Your task to perform on an android device: delete browsing data in the chrome app Image 0: 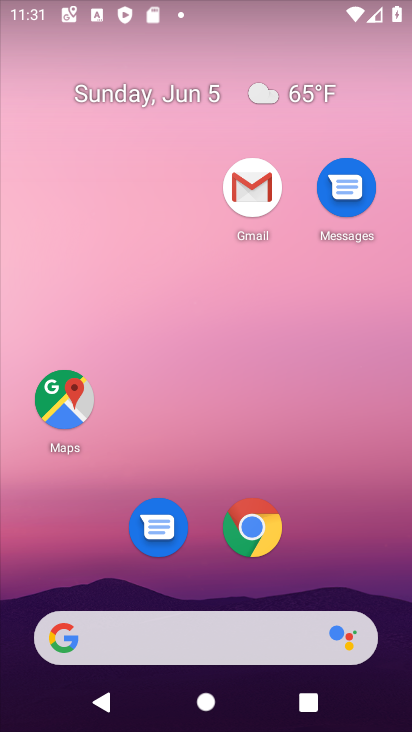
Step 0: click (243, 527)
Your task to perform on an android device: delete browsing data in the chrome app Image 1: 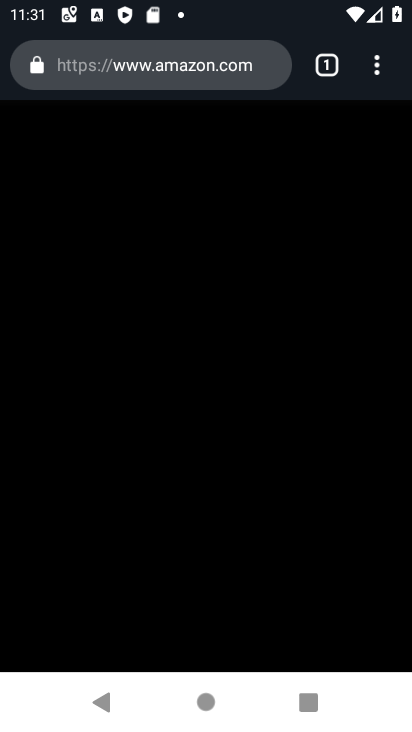
Step 1: click (383, 55)
Your task to perform on an android device: delete browsing data in the chrome app Image 2: 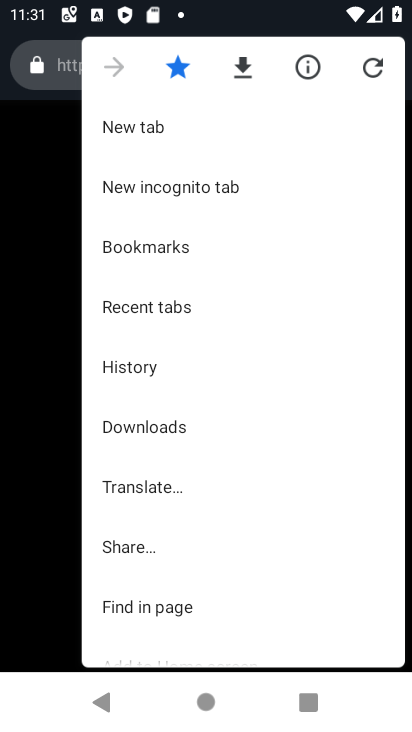
Step 2: drag from (255, 593) to (262, 546)
Your task to perform on an android device: delete browsing data in the chrome app Image 3: 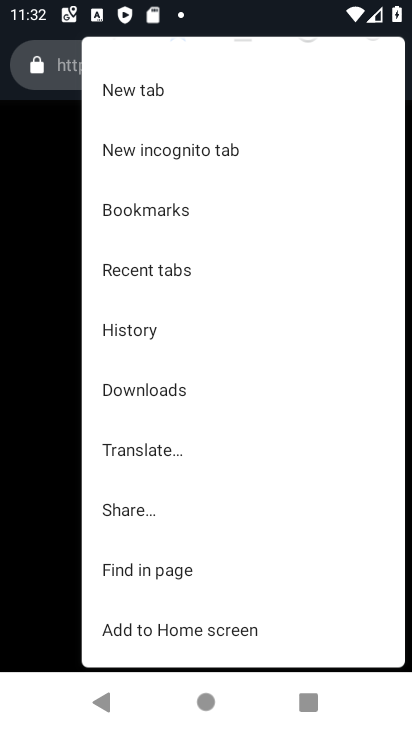
Step 3: drag from (344, 606) to (348, 503)
Your task to perform on an android device: delete browsing data in the chrome app Image 4: 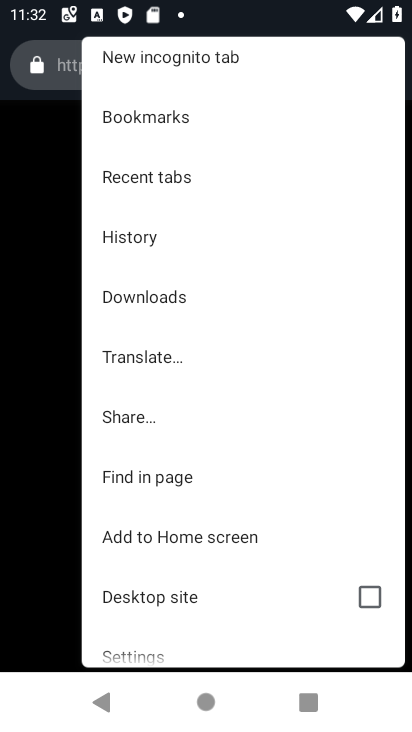
Step 4: click (159, 645)
Your task to perform on an android device: delete browsing data in the chrome app Image 5: 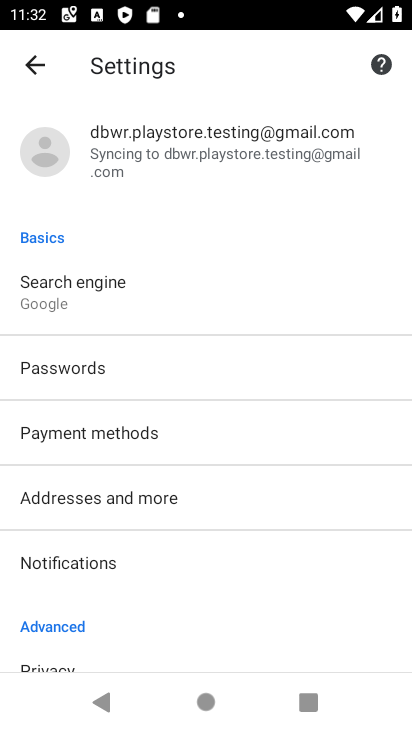
Step 5: drag from (358, 618) to (343, 437)
Your task to perform on an android device: delete browsing data in the chrome app Image 6: 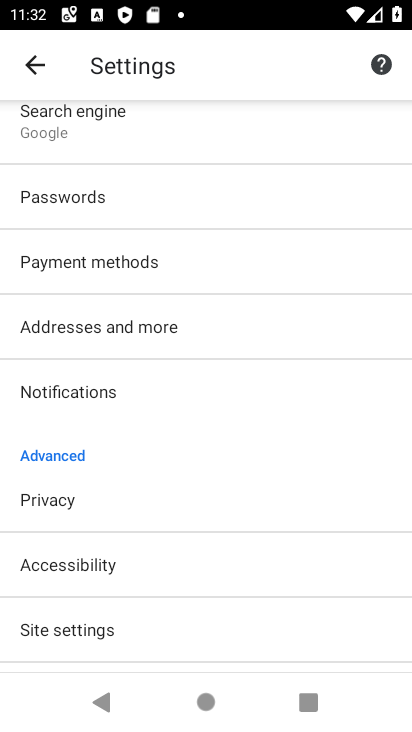
Step 6: click (141, 508)
Your task to perform on an android device: delete browsing data in the chrome app Image 7: 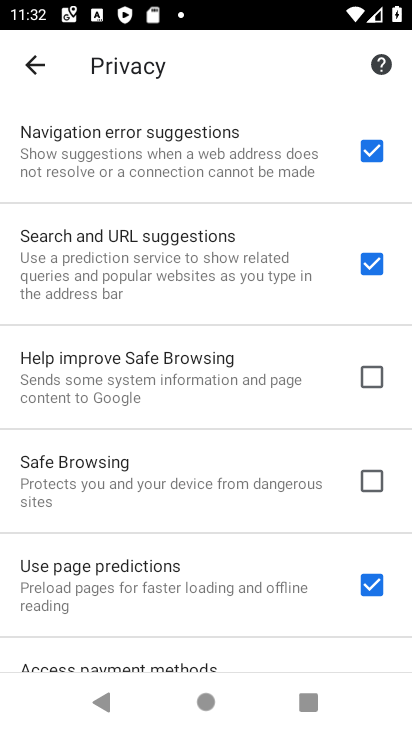
Step 7: drag from (262, 642) to (184, 326)
Your task to perform on an android device: delete browsing data in the chrome app Image 8: 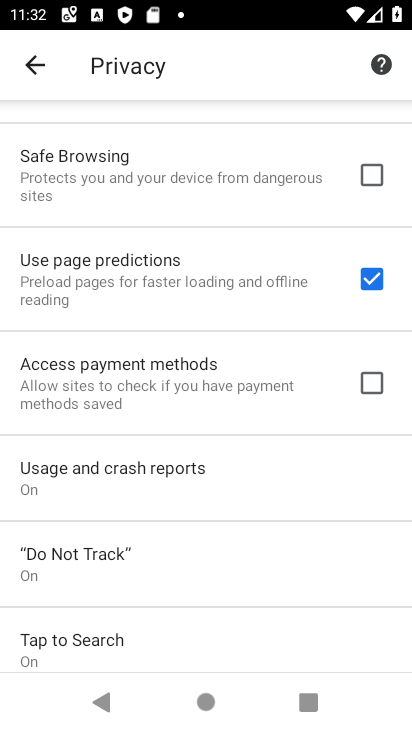
Step 8: drag from (212, 621) to (159, 334)
Your task to perform on an android device: delete browsing data in the chrome app Image 9: 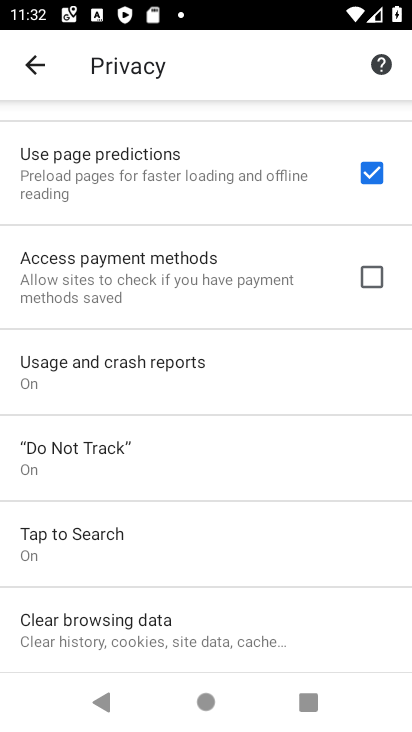
Step 9: click (153, 596)
Your task to perform on an android device: delete browsing data in the chrome app Image 10: 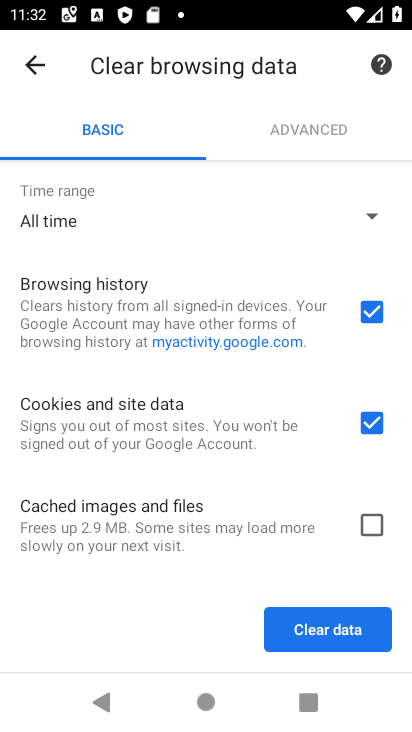
Step 10: click (380, 520)
Your task to perform on an android device: delete browsing data in the chrome app Image 11: 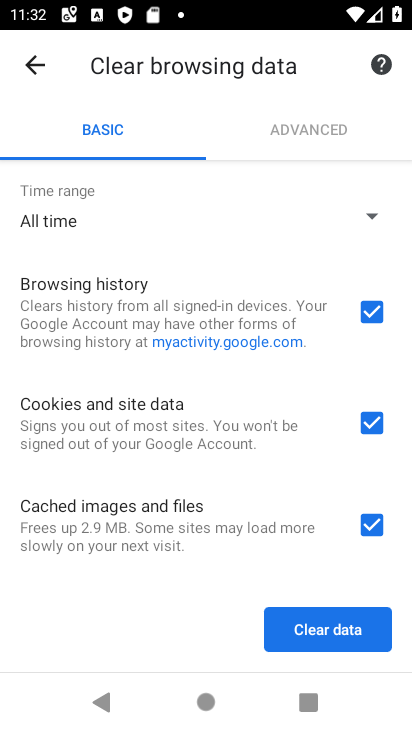
Step 11: click (337, 623)
Your task to perform on an android device: delete browsing data in the chrome app Image 12: 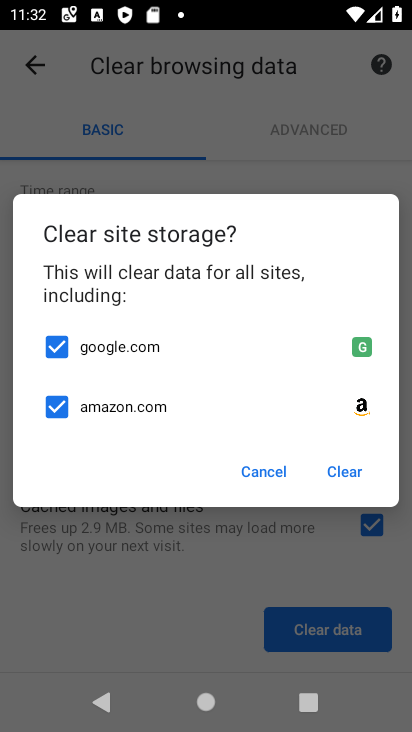
Step 12: click (333, 469)
Your task to perform on an android device: delete browsing data in the chrome app Image 13: 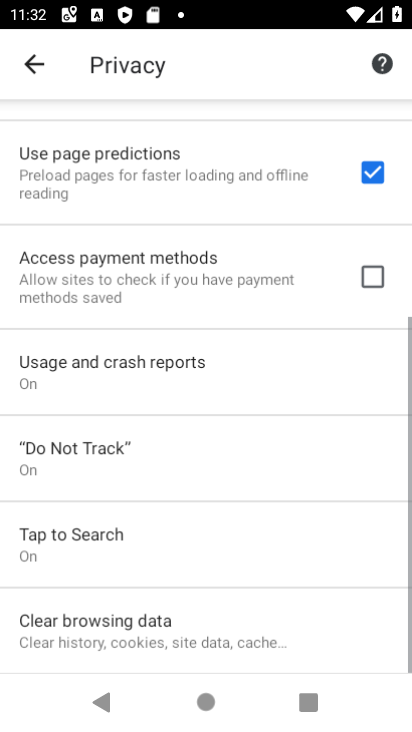
Step 13: click (333, 469)
Your task to perform on an android device: delete browsing data in the chrome app Image 14: 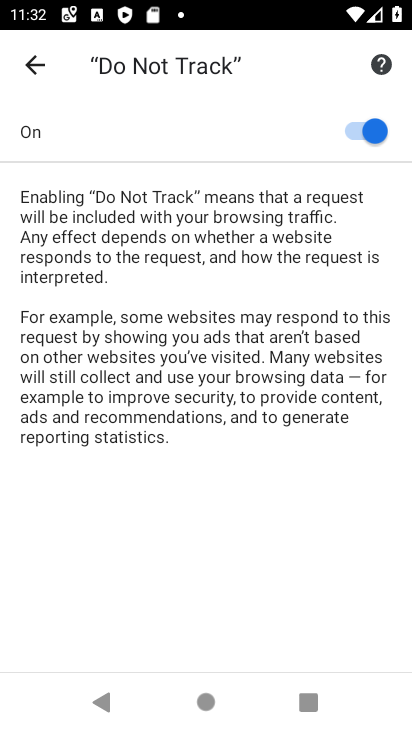
Step 14: task complete